Your task to perform on an android device: Search for Italian restaurants on Maps Image 0: 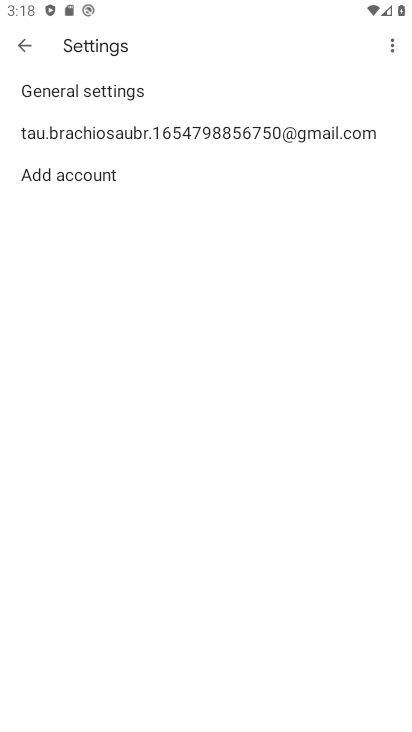
Step 0: press home button
Your task to perform on an android device: Search for Italian restaurants on Maps Image 1: 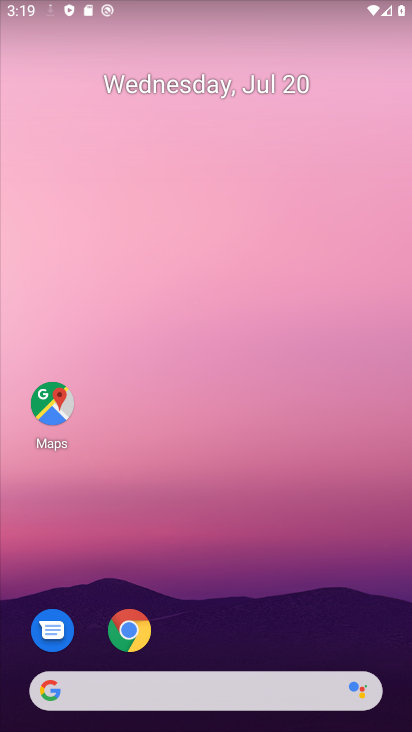
Step 1: click (50, 403)
Your task to perform on an android device: Search for Italian restaurants on Maps Image 2: 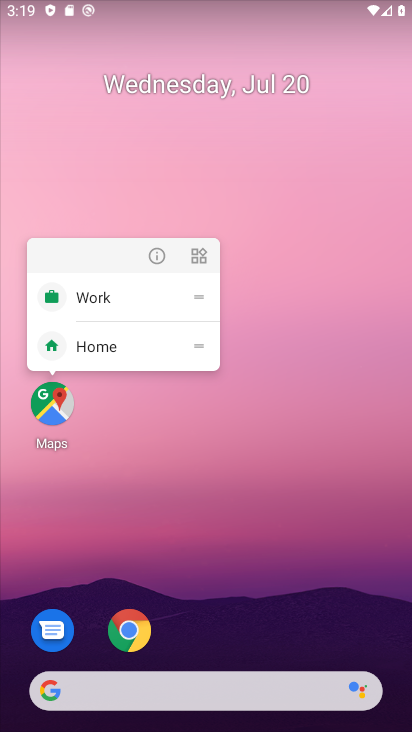
Step 2: click (60, 406)
Your task to perform on an android device: Search for Italian restaurants on Maps Image 3: 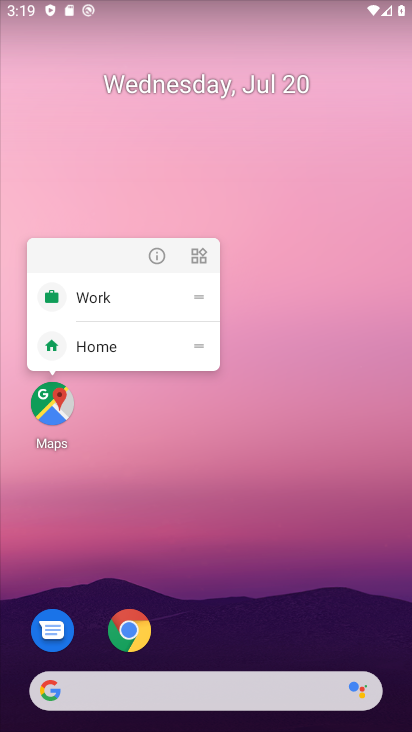
Step 3: click (44, 408)
Your task to perform on an android device: Search for Italian restaurants on Maps Image 4: 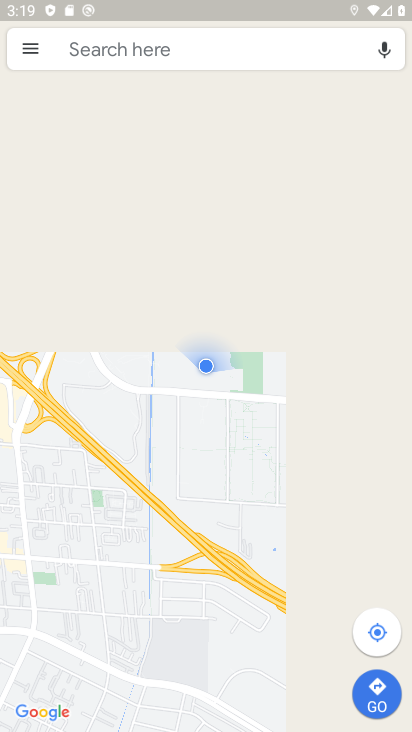
Step 4: click (117, 43)
Your task to perform on an android device: Search for Italian restaurants on Maps Image 5: 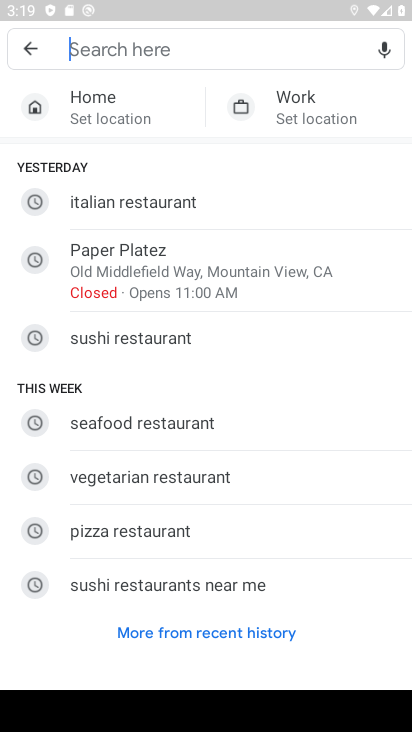
Step 5: type "italian"
Your task to perform on an android device: Search for Italian restaurants on Maps Image 6: 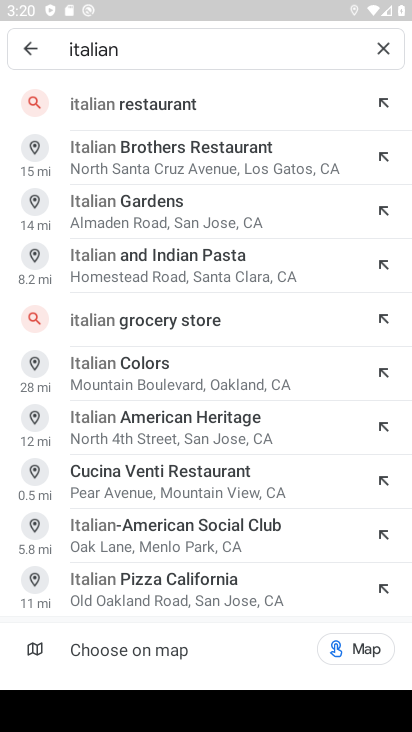
Step 6: click (119, 110)
Your task to perform on an android device: Search for Italian restaurants on Maps Image 7: 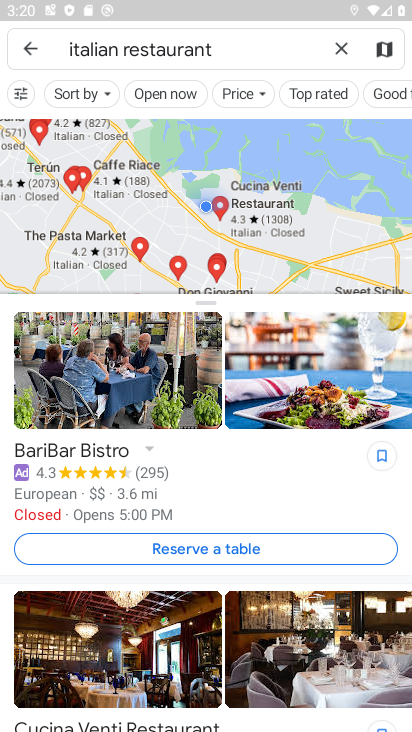
Step 7: task complete